Your task to perform on an android device: toggle airplane mode Image 0: 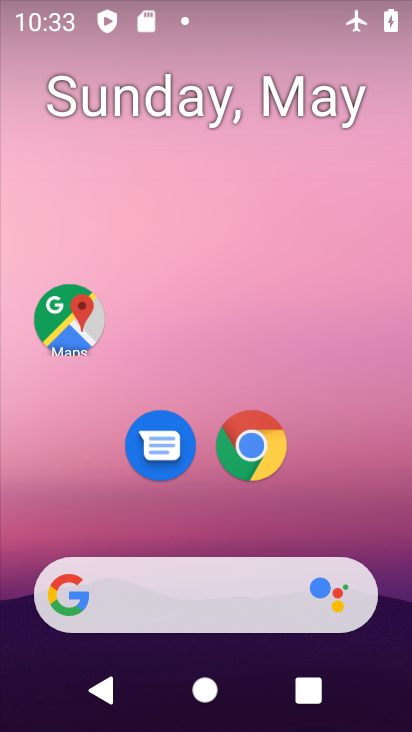
Step 0: drag from (233, 306) to (293, 21)
Your task to perform on an android device: toggle airplane mode Image 1: 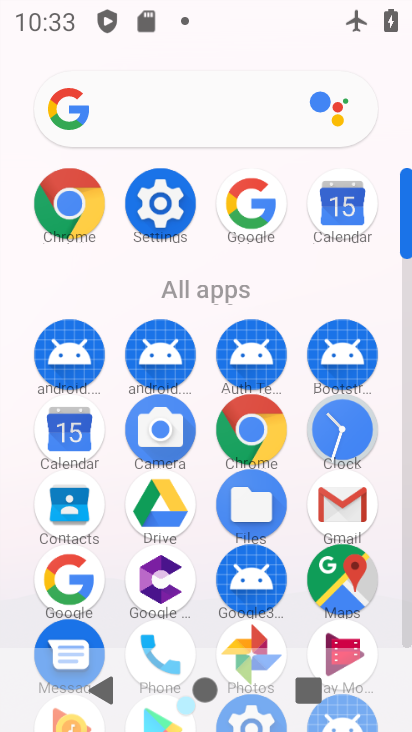
Step 1: drag from (203, 616) to (235, 427)
Your task to perform on an android device: toggle airplane mode Image 2: 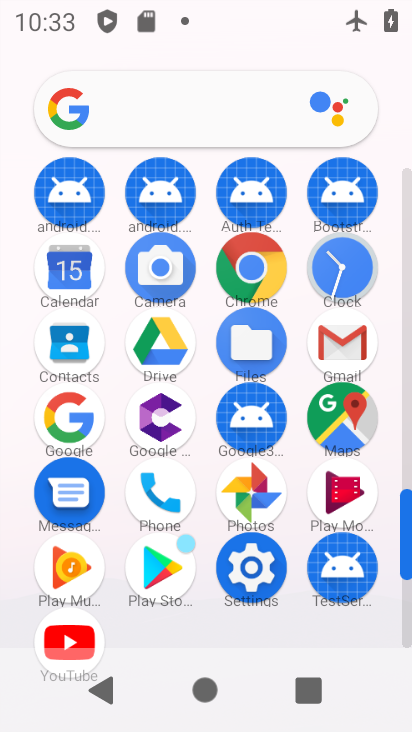
Step 2: click (253, 561)
Your task to perform on an android device: toggle airplane mode Image 3: 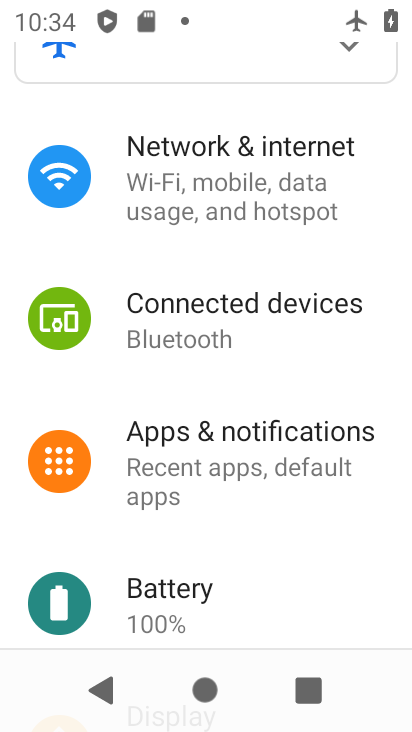
Step 3: click (204, 190)
Your task to perform on an android device: toggle airplane mode Image 4: 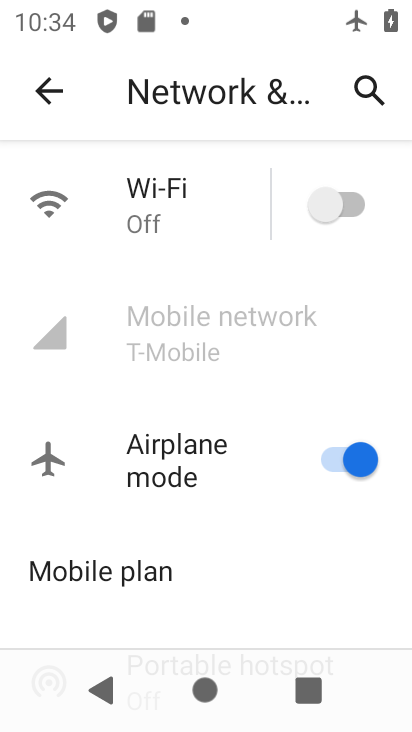
Step 4: click (332, 460)
Your task to perform on an android device: toggle airplane mode Image 5: 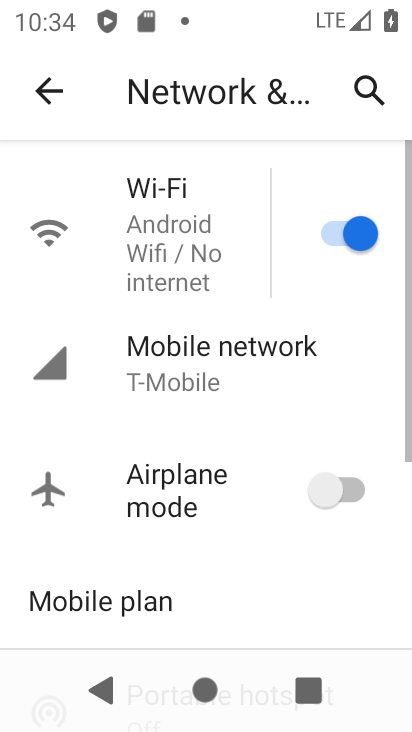
Step 5: task complete